Your task to perform on an android device: Go to calendar. Show me events next week Image 0: 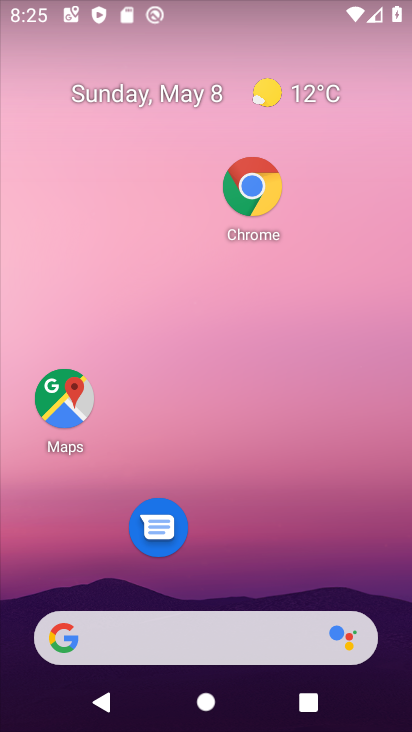
Step 0: drag from (276, 528) to (349, 165)
Your task to perform on an android device: Go to calendar. Show me events next week Image 1: 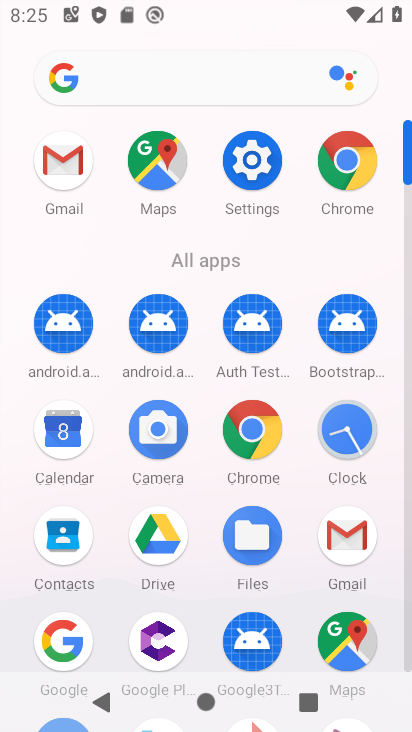
Step 1: click (53, 424)
Your task to perform on an android device: Go to calendar. Show me events next week Image 2: 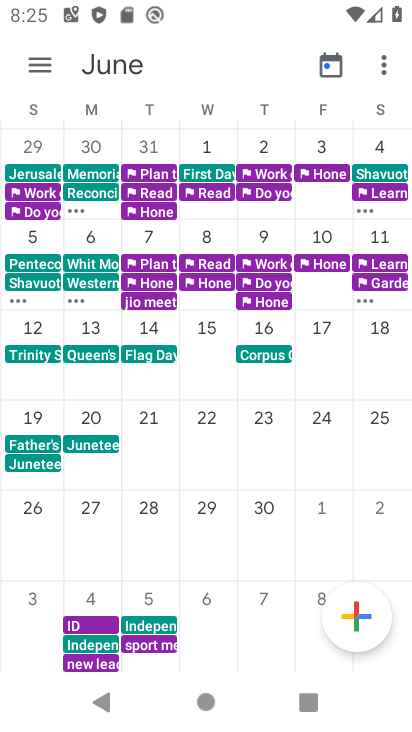
Step 2: drag from (41, 354) to (360, 394)
Your task to perform on an android device: Go to calendar. Show me events next week Image 3: 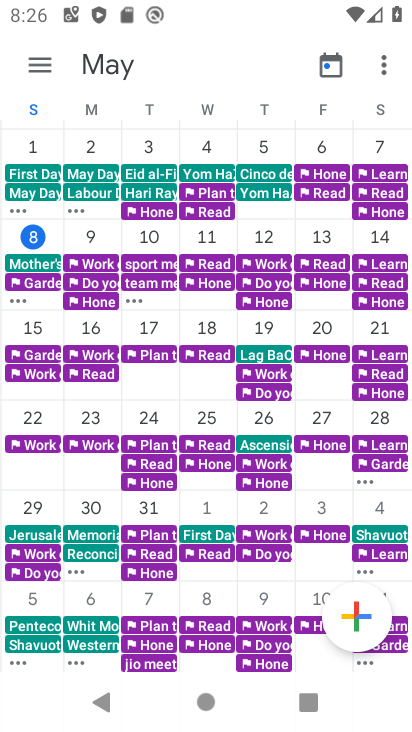
Step 3: click (21, 339)
Your task to perform on an android device: Go to calendar. Show me events next week Image 4: 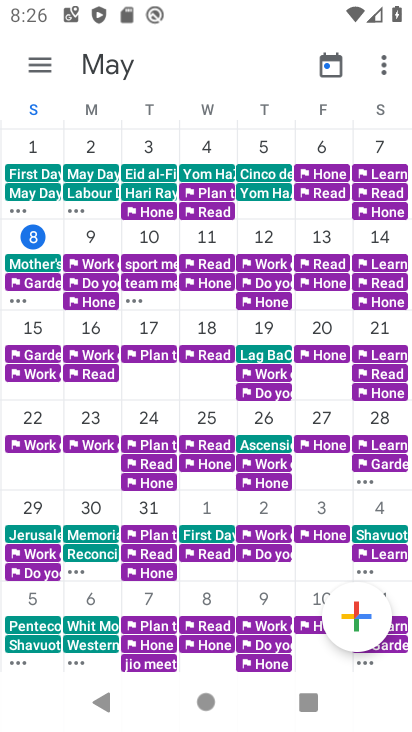
Step 4: click (20, 334)
Your task to perform on an android device: Go to calendar. Show me events next week Image 5: 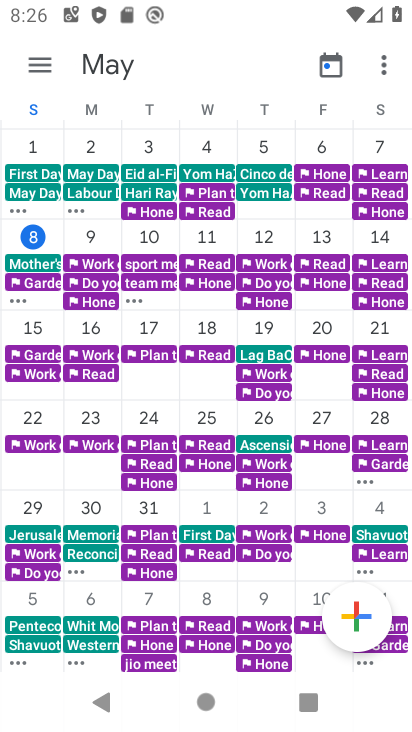
Step 5: click (25, 325)
Your task to perform on an android device: Go to calendar. Show me events next week Image 6: 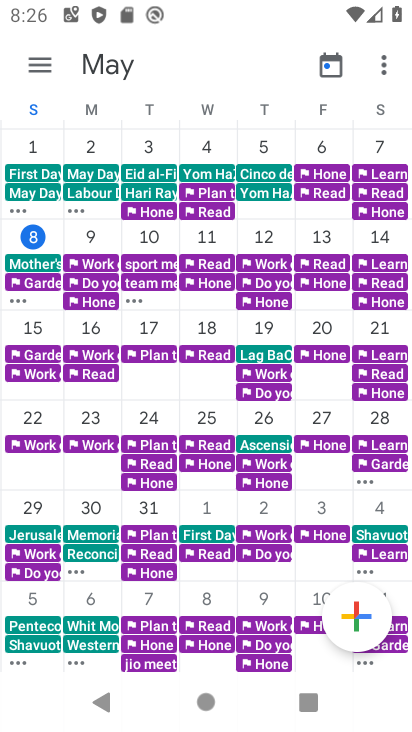
Step 6: click (25, 325)
Your task to perform on an android device: Go to calendar. Show me events next week Image 7: 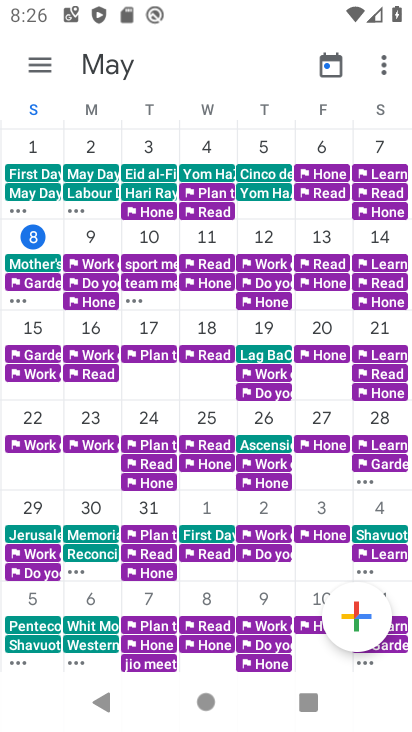
Step 7: click (54, 328)
Your task to perform on an android device: Go to calendar. Show me events next week Image 8: 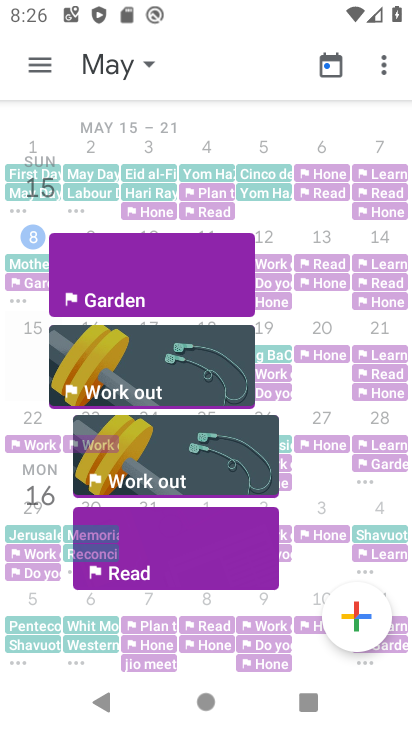
Step 8: click (44, 327)
Your task to perform on an android device: Go to calendar. Show me events next week Image 9: 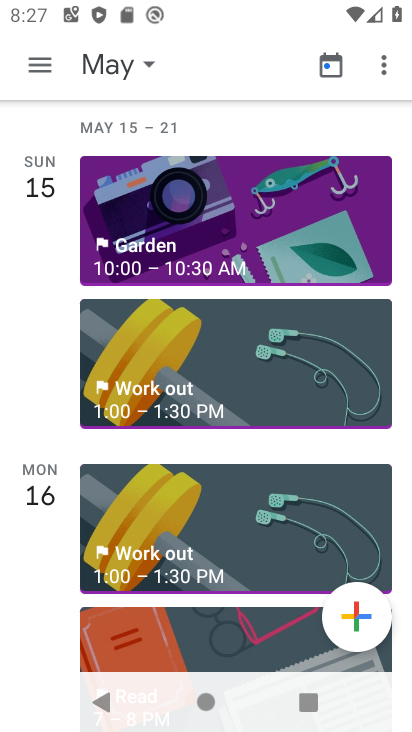
Step 9: task complete